Your task to perform on an android device: toggle sleep mode Image 0: 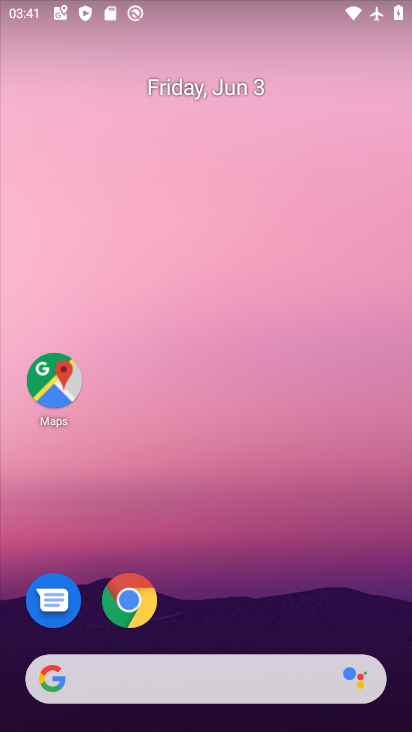
Step 0: drag from (207, 615) to (304, 107)
Your task to perform on an android device: toggle sleep mode Image 1: 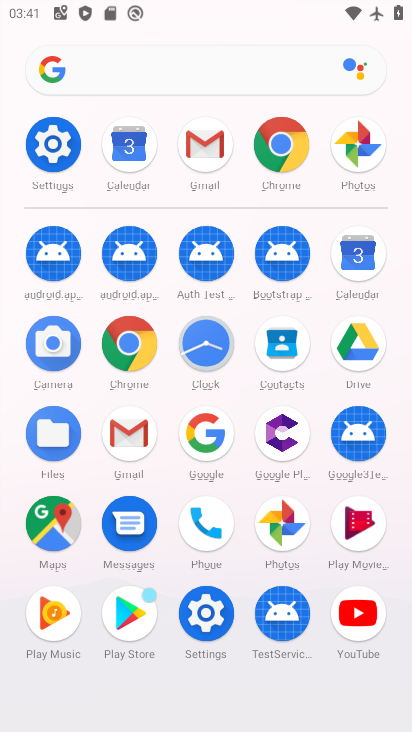
Step 1: click (59, 159)
Your task to perform on an android device: toggle sleep mode Image 2: 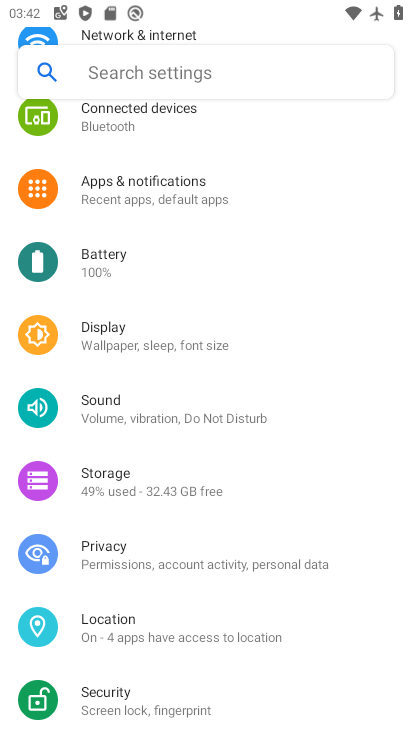
Step 2: click (198, 78)
Your task to perform on an android device: toggle sleep mode Image 3: 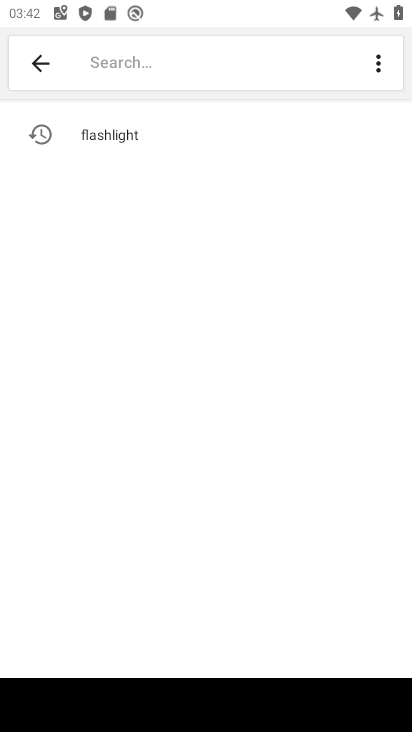
Step 3: type "sleep mode"
Your task to perform on an android device: toggle sleep mode Image 4: 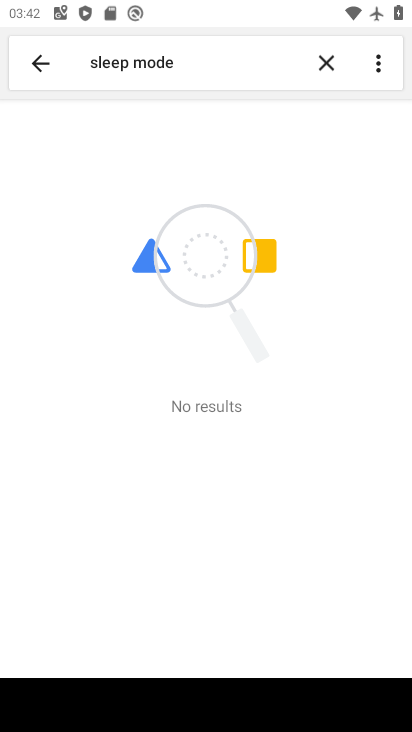
Step 4: task complete